Your task to perform on an android device: Show the shopping cart on costco.com. Search for "dell xps" on costco.com, select the first entry, add it to the cart, then select checkout. Image 0: 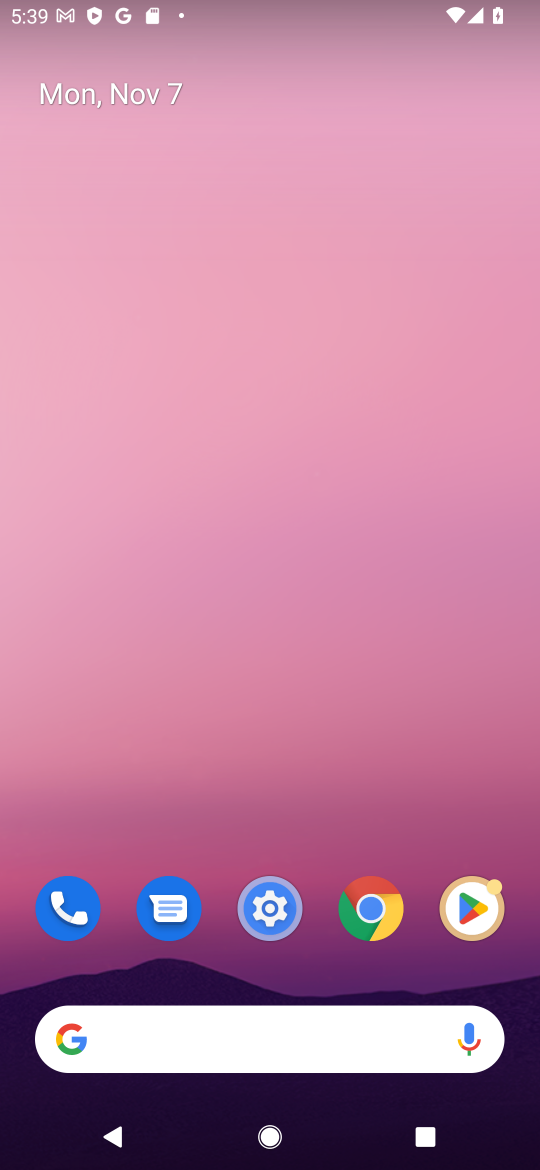
Step 0: click (278, 1069)
Your task to perform on an android device: Show the shopping cart on costco.com. Search for "dell xps" on costco.com, select the first entry, add it to the cart, then select checkout. Image 1: 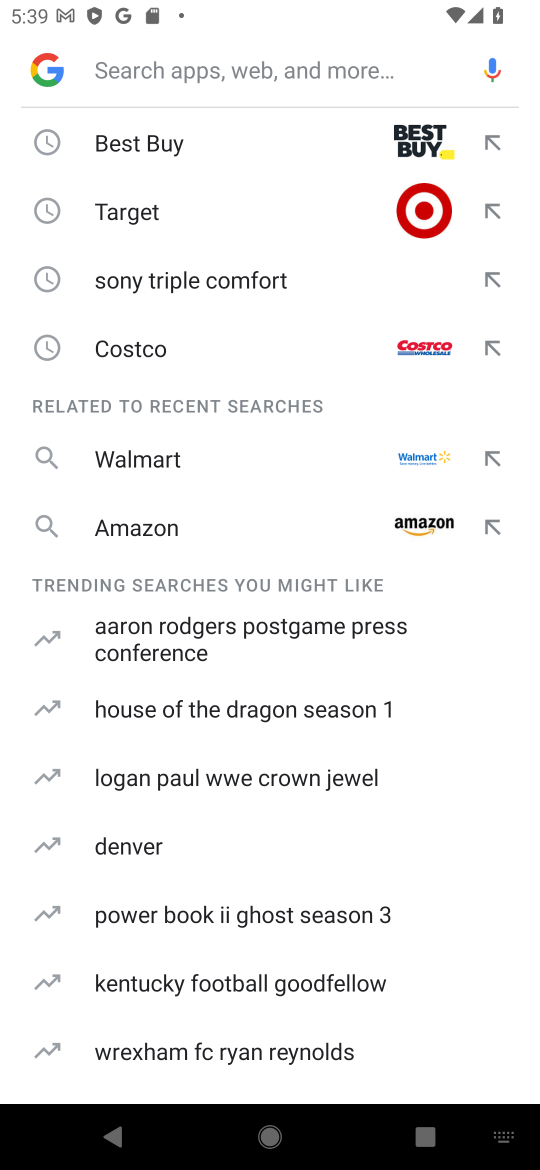
Step 1: click (231, 352)
Your task to perform on an android device: Show the shopping cart on costco.com. Search for "dell xps" on costco.com, select the first entry, add it to the cart, then select checkout. Image 2: 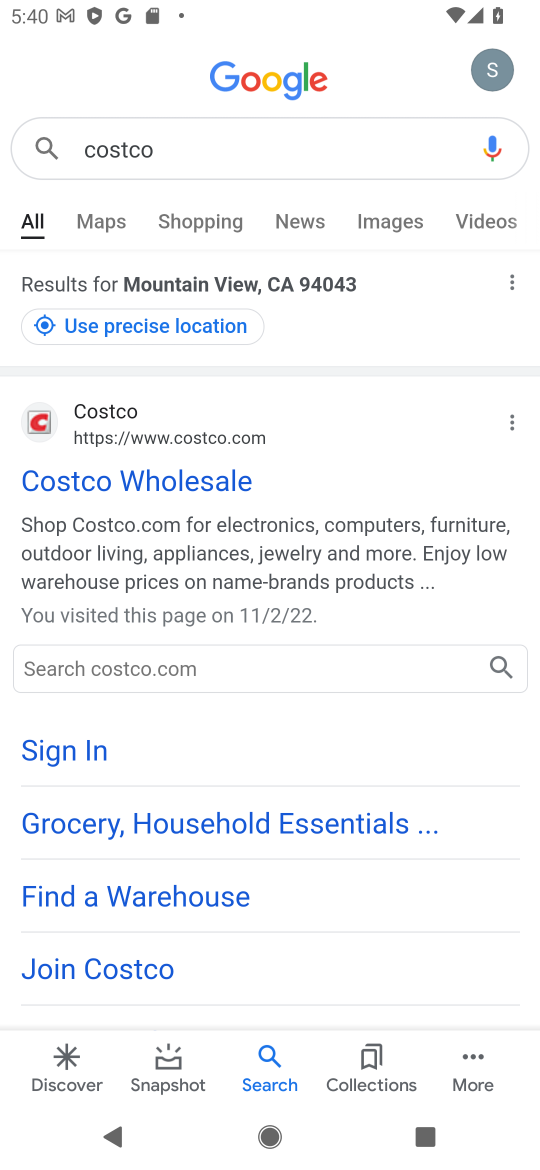
Step 2: click (118, 491)
Your task to perform on an android device: Show the shopping cart on costco.com. Search for "dell xps" on costco.com, select the first entry, add it to the cart, then select checkout. Image 3: 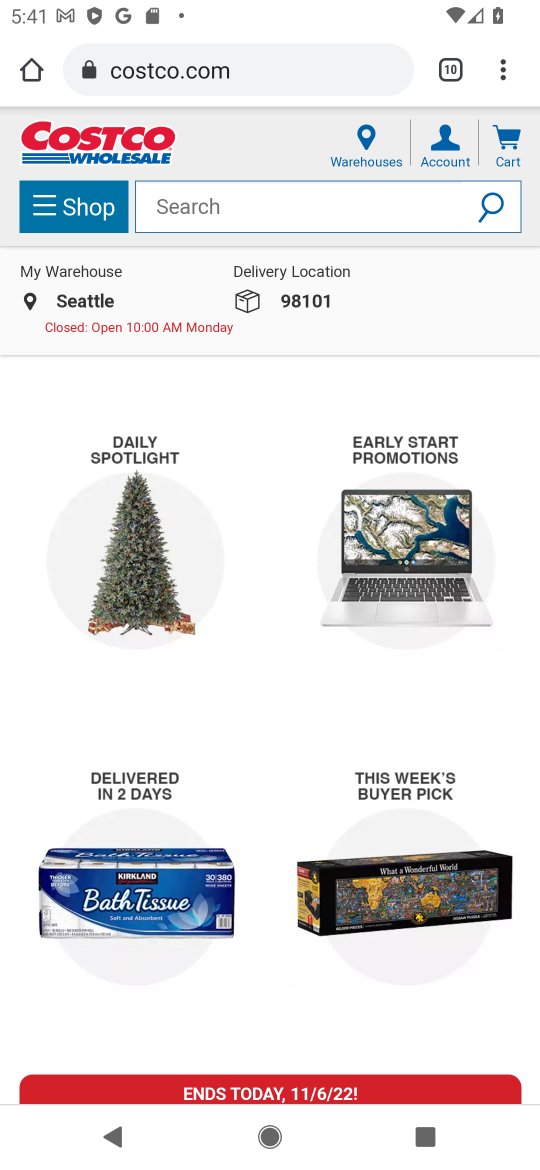
Step 3: click (273, 225)
Your task to perform on an android device: Show the shopping cart on costco.com. Search for "dell xps" on costco.com, select the first entry, add it to the cart, then select checkout. Image 4: 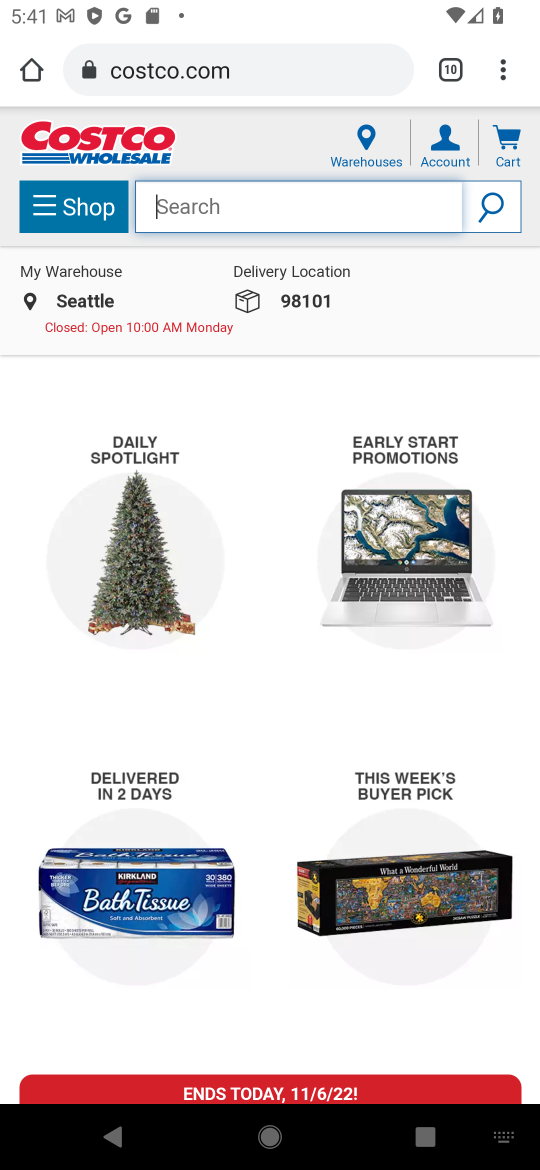
Step 4: type "delll exps"
Your task to perform on an android device: Show the shopping cart on costco.com. Search for "dell xps" on costco.com, select the first entry, add it to the cart, then select checkout. Image 5: 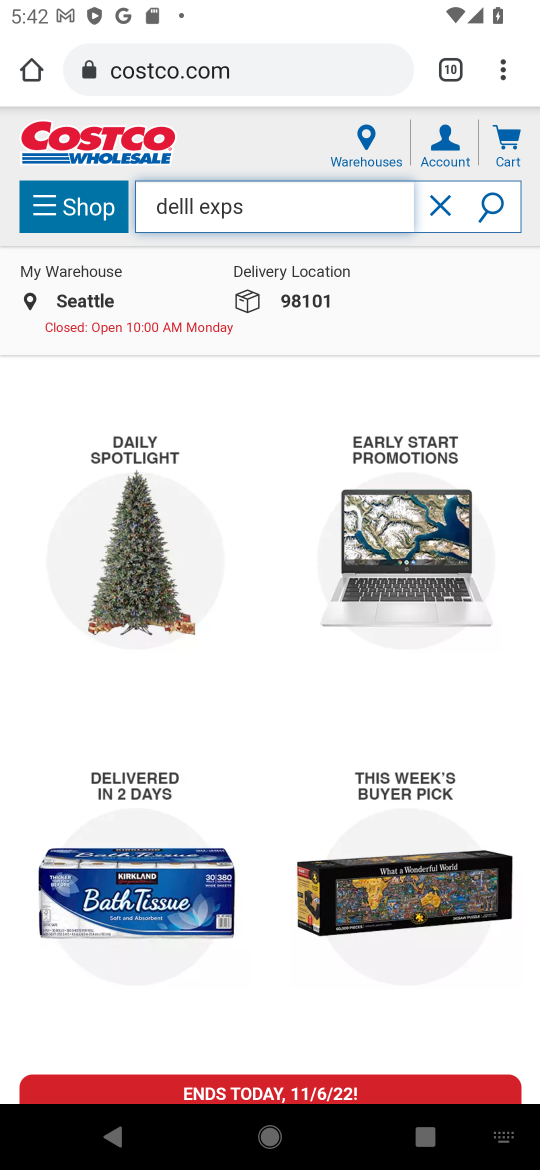
Step 5: click (492, 213)
Your task to perform on an android device: Show the shopping cart on costco.com. Search for "dell xps" on costco.com, select the first entry, add it to the cart, then select checkout. Image 6: 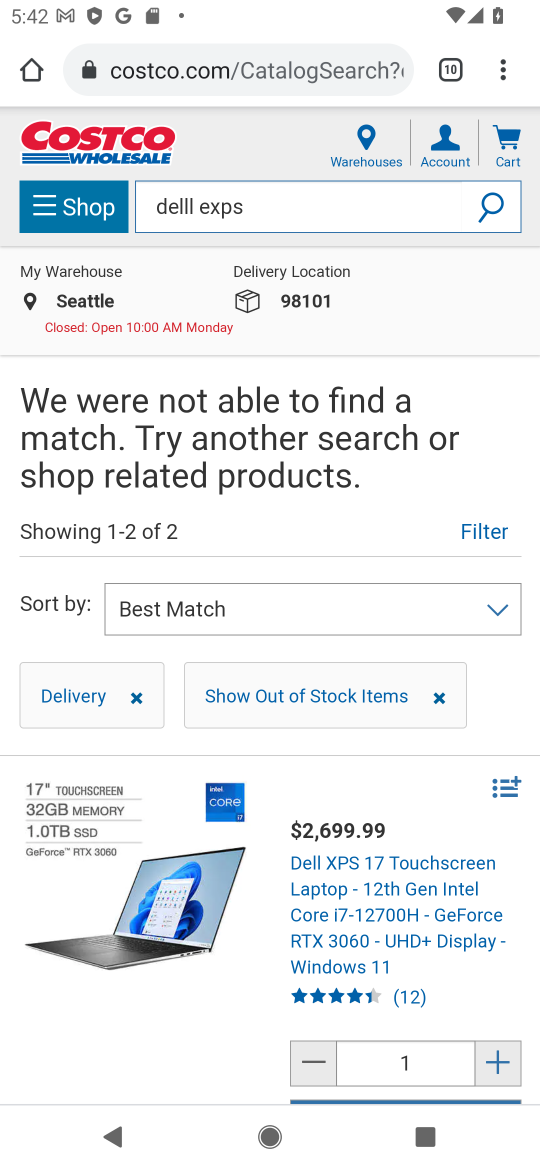
Step 6: click (481, 1059)
Your task to perform on an android device: Show the shopping cart on costco.com. Search for "dell xps" on costco.com, select the first entry, add it to the cart, then select checkout. Image 7: 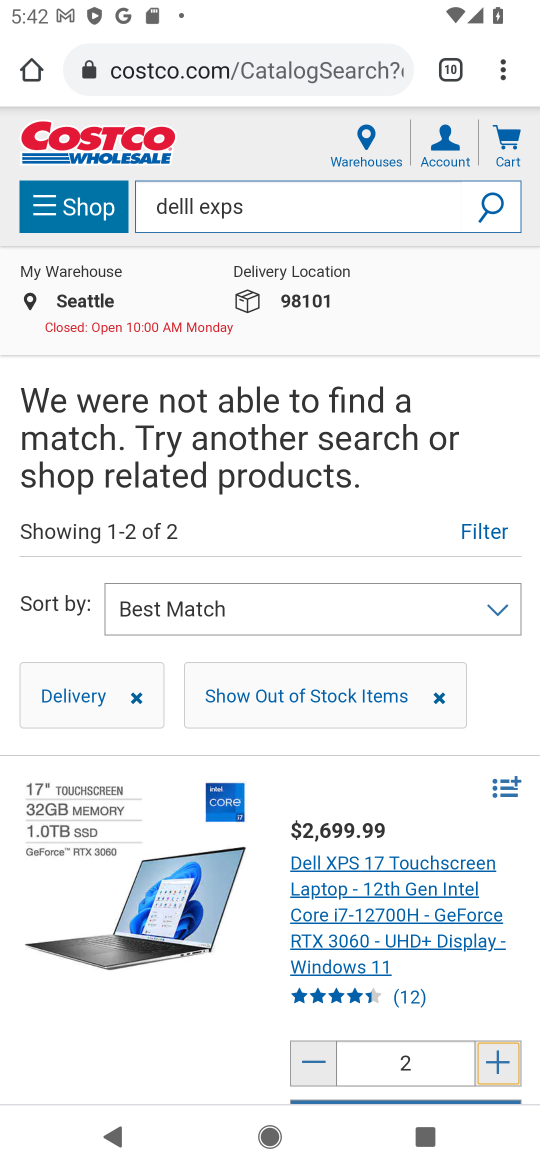
Step 7: task complete